Your task to perform on an android device: change the clock display to analog Image 0: 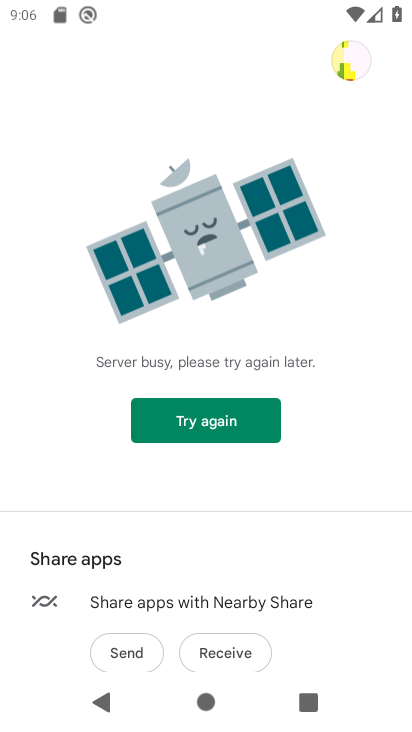
Step 0: press home button
Your task to perform on an android device: change the clock display to analog Image 1: 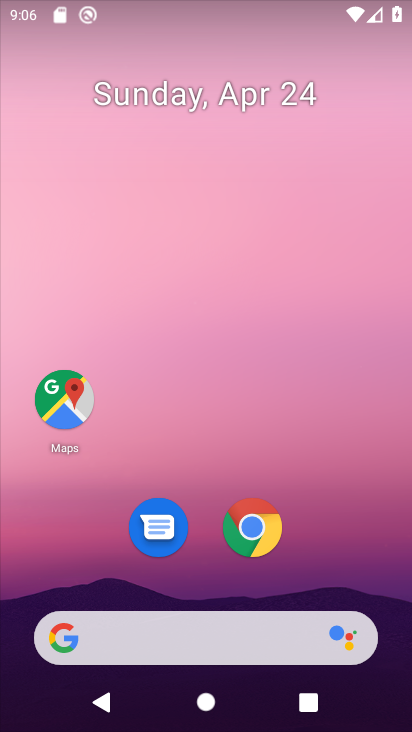
Step 1: drag from (229, 465) to (260, 14)
Your task to perform on an android device: change the clock display to analog Image 2: 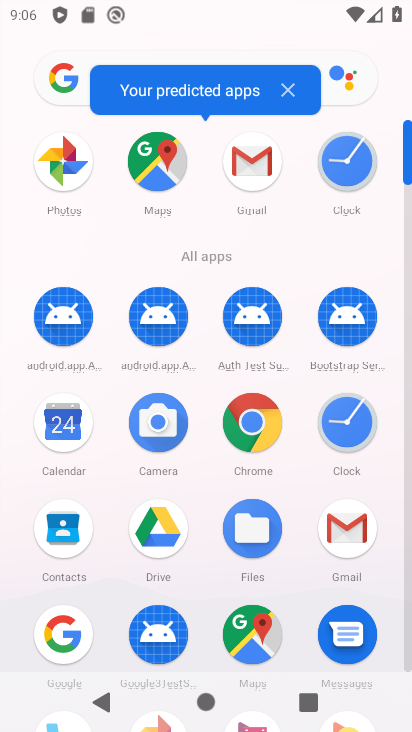
Step 2: drag from (207, 662) to (200, 180)
Your task to perform on an android device: change the clock display to analog Image 3: 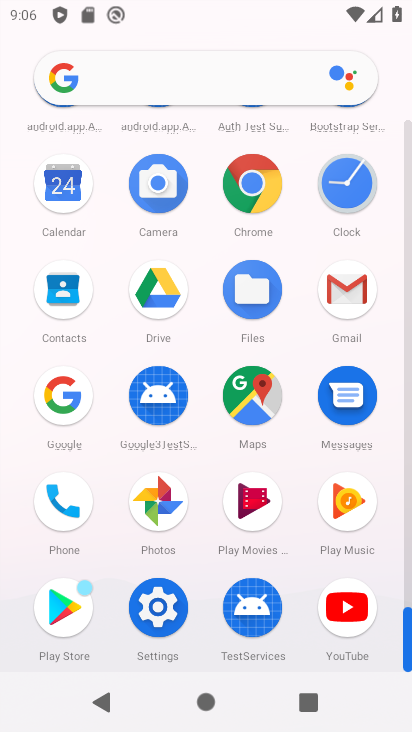
Step 3: click (159, 609)
Your task to perform on an android device: change the clock display to analog Image 4: 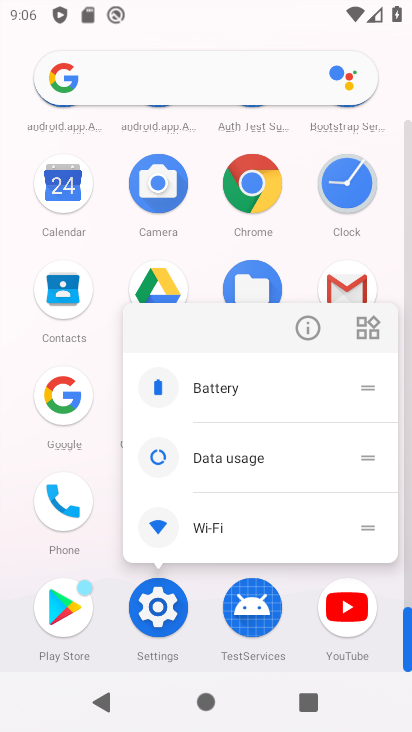
Step 4: click (159, 609)
Your task to perform on an android device: change the clock display to analog Image 5: 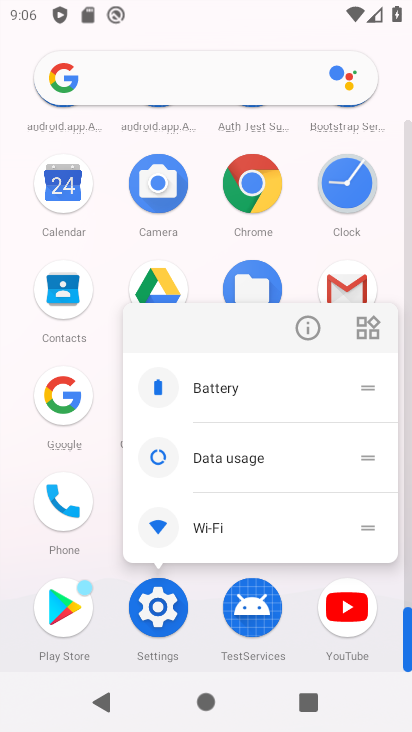
Step 5: click (159, 609)
Your task to perform on an android device: change the clock display to analog Image 6: 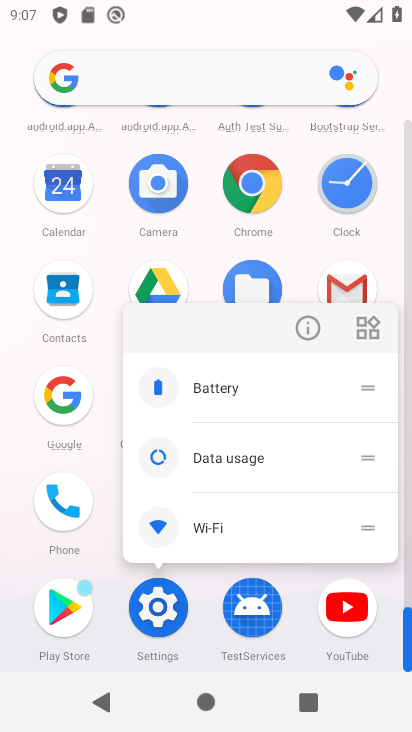
Step 6: click (159, 609)
Your task to perform on an android device: change the clock display to analog Image 7: 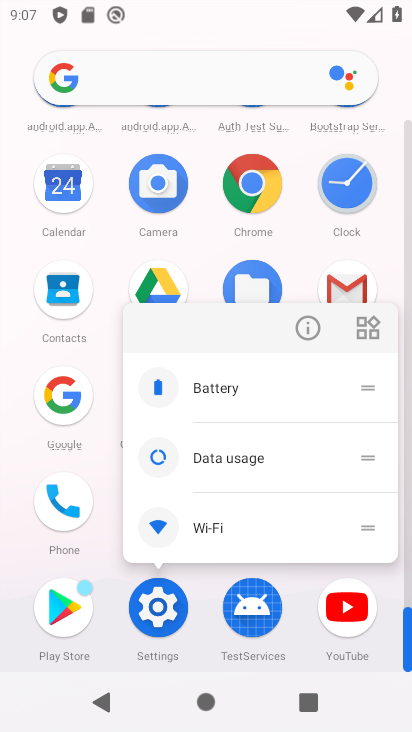
Step 7: click (339, 178)
Your task to perform on an android device: change the clock display to analog Image 8: 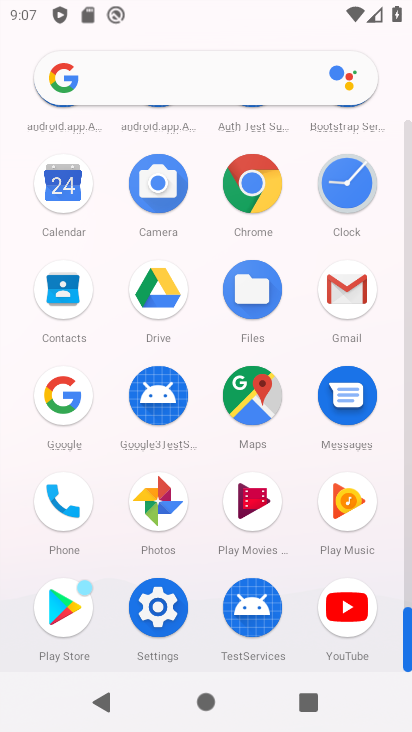
Step 8: click (339, 178)
Your task to perform on an android device: change the clock display to analog Image 9: 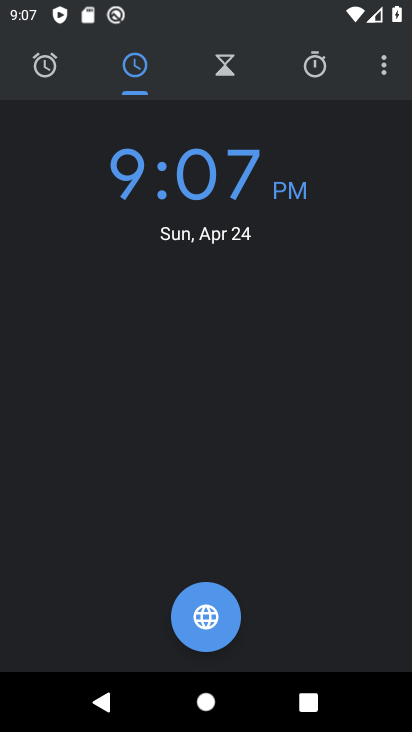
Step 9: click (373, 68)
Your task to perform on an android device: change the clock display to analog Image 10: 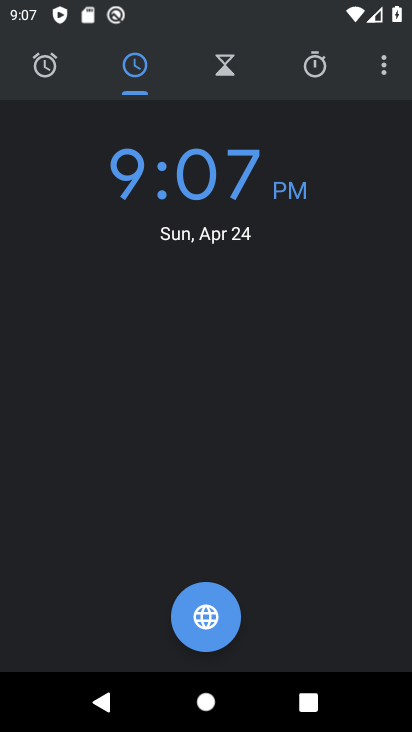
Step 10: click (384, 70)
Your task to perform on an android device: change the clock display to analog Image 11: 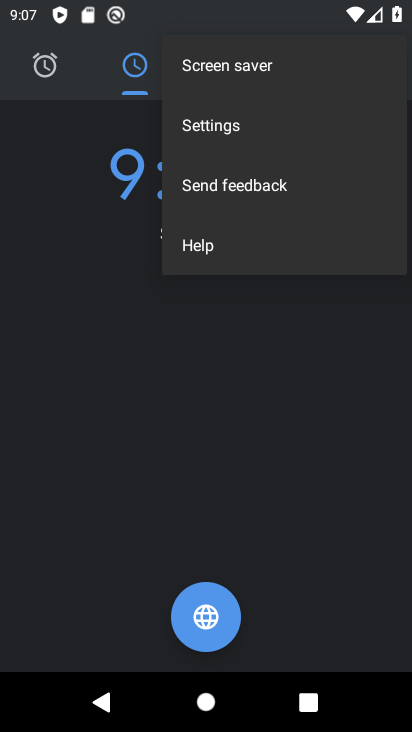
Step 11: click (238, 135)
Your task to perform on an android device: change the clock display to analog Image 12: 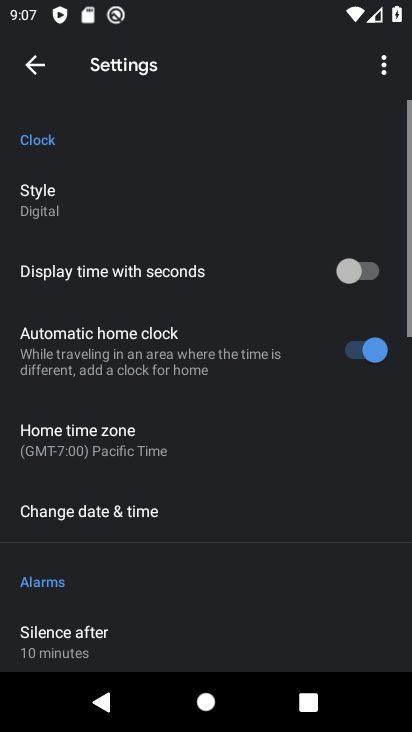
Step 12: click (73, 189)
Your task to perform on an android device: change the clock display to analog Image 13: 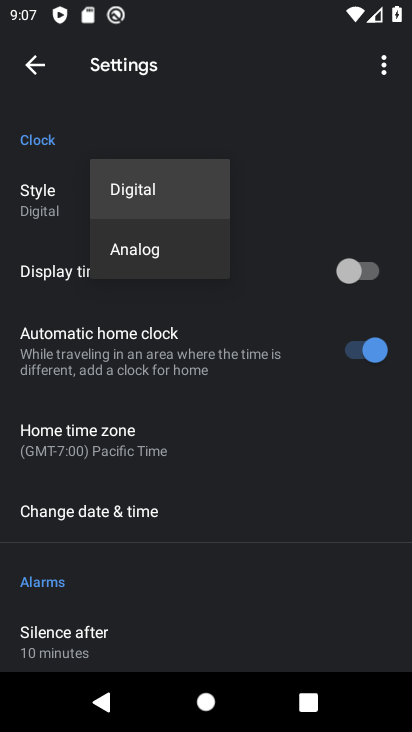
Step 13: click (123, 238)
Your task to perform on an android device: change the clock display to analog Image 14: 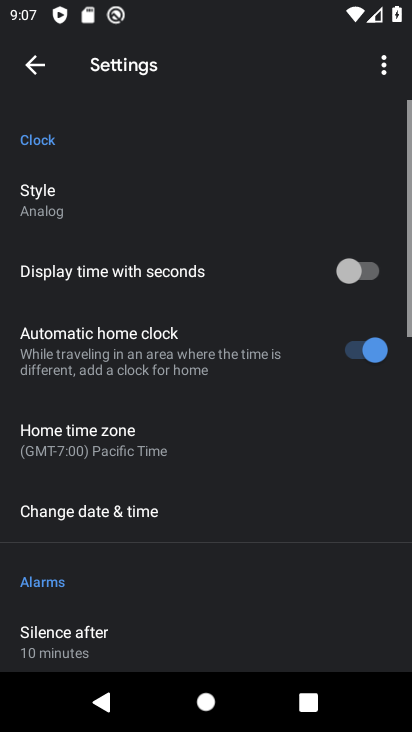
Step 14: task complete